Your task to perform on an android device: change text size in settings app Image 0: 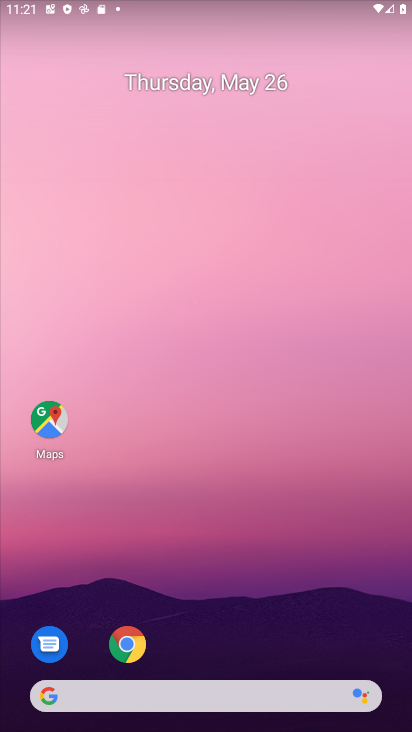
Step 0: drag from (335, 633) to (342, 3)
Your task to perform on an android device: change text size in settings app Image 1: 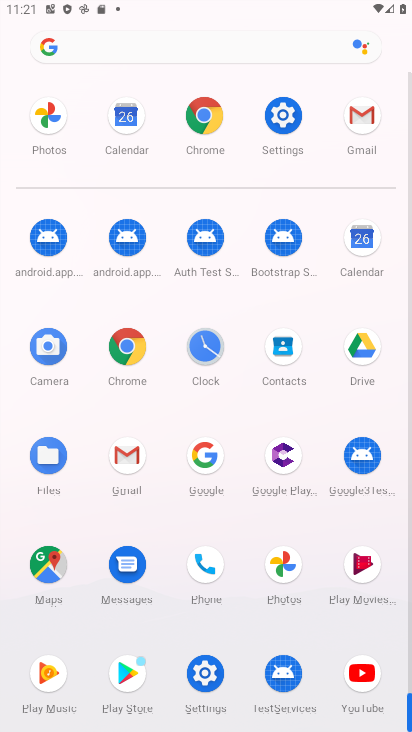
Step 1: click (208, 659)
Your task to perform on an android device: change text size in settings app Image 2: 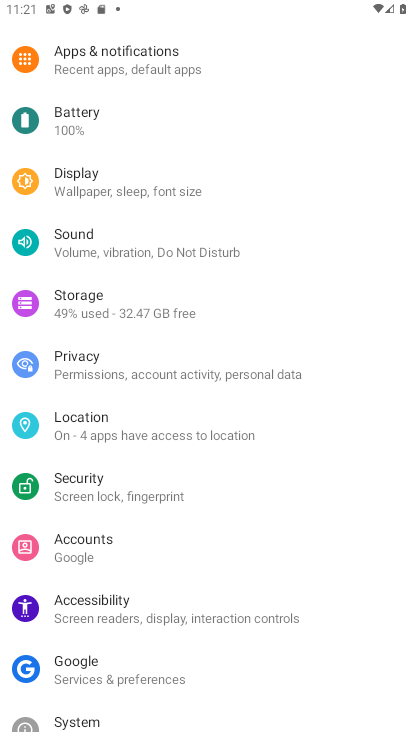
Step 2: click (108, 174)
Your task to perform on an android device: change text size in settings app Image 3: 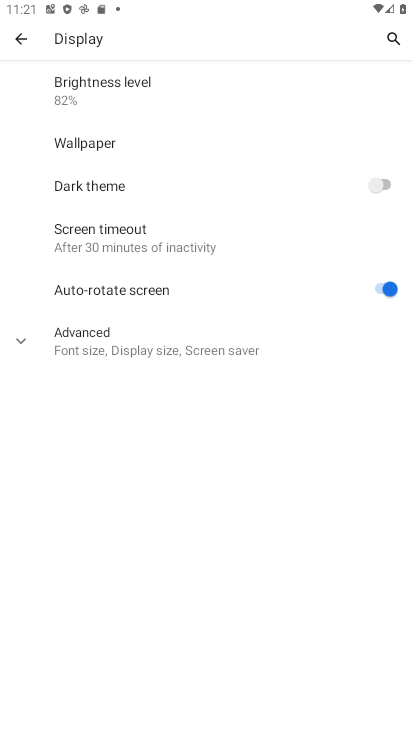
Step 3: click (131, 352)
Your task to perform on an android device: change text size in settings app Image 4: 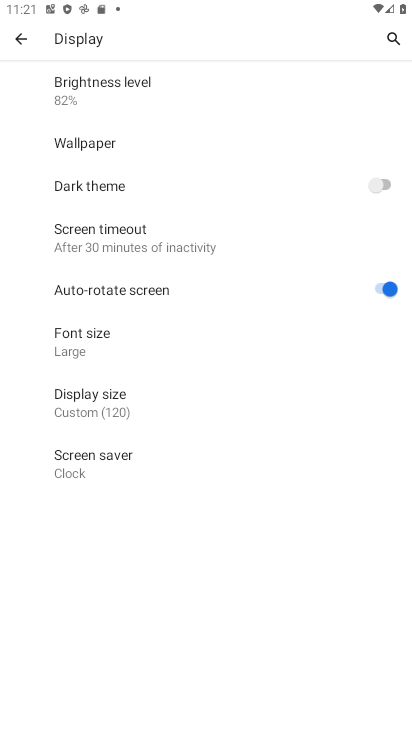
Step 4: click (150, 344)
Your task to perform on an android device: change text size in settings app Image 5: 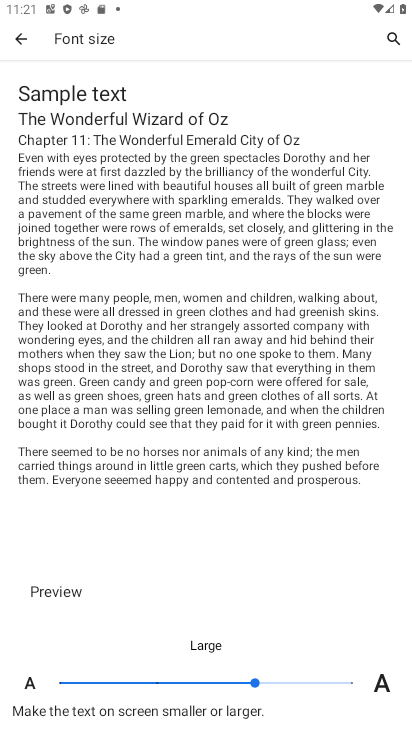
Step 5: click (154, 678)
Your task to perform on an android device: change text size in settings app Image 6: 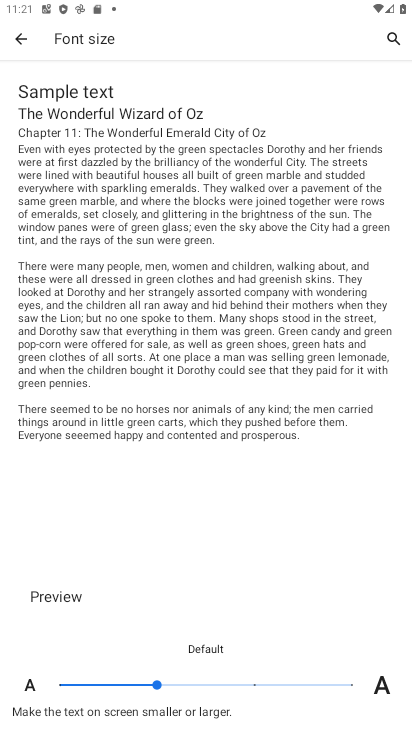
Step 6: task complete